Your task to perform on an android device: refresh tabs in the chrome app Image 0: 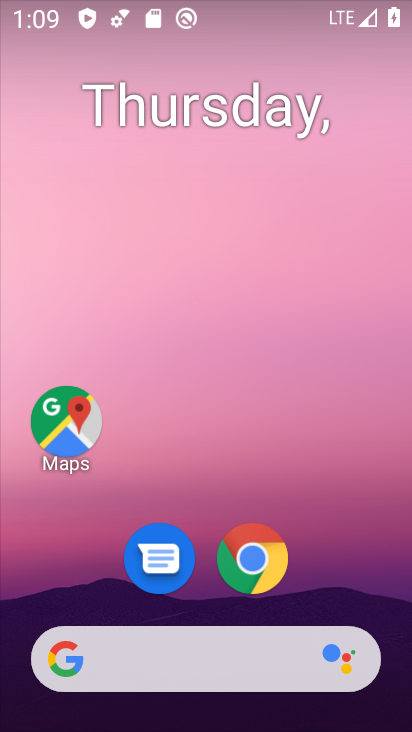
Step 0: click (260, 560)
Your task to perform on an android device: refresh tabs in the chrome app Image 1: 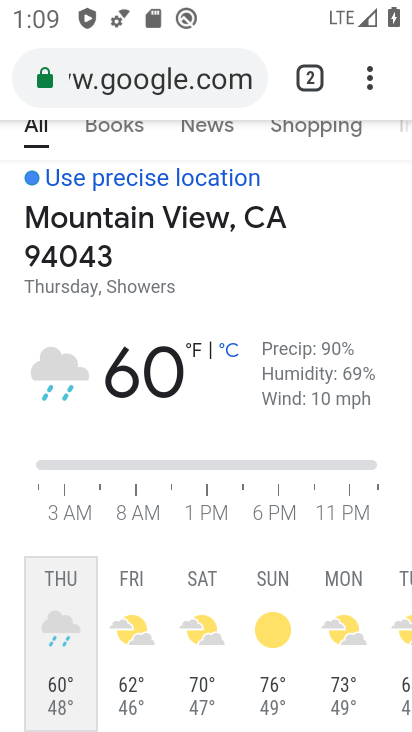
Step 1: click (368, 87)
Your task to perform on an android device: refresh tabs in the chrome app Image 2: 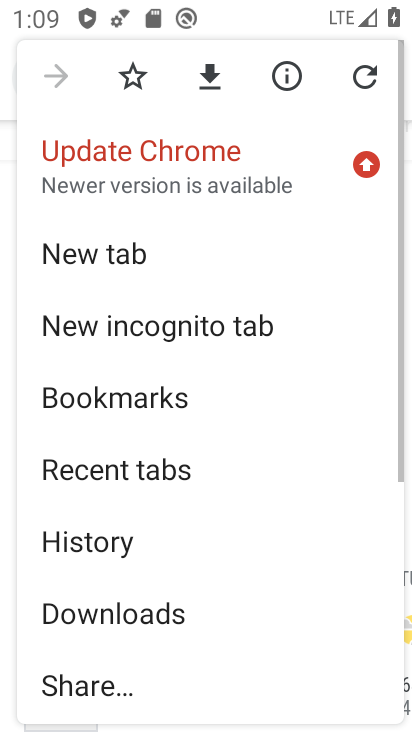
Step 2: click (368, 87)
Your task to perform on an android device: refresh tabs in the chrome app Image 3: 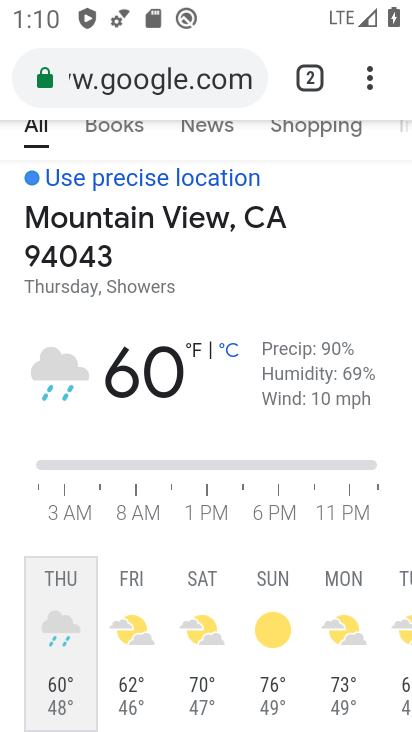
Step 3: task complete